Your task to perform on an android device: Go to Amazon Image 0: 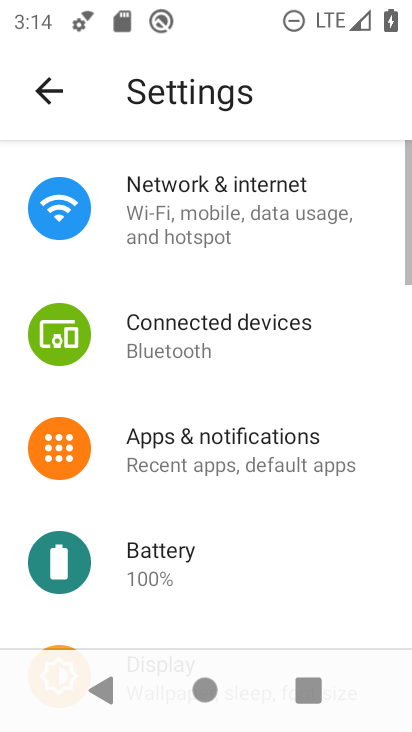
Step 0: press home button
Your task to perform on an android device: Go to Amazon Image 1: 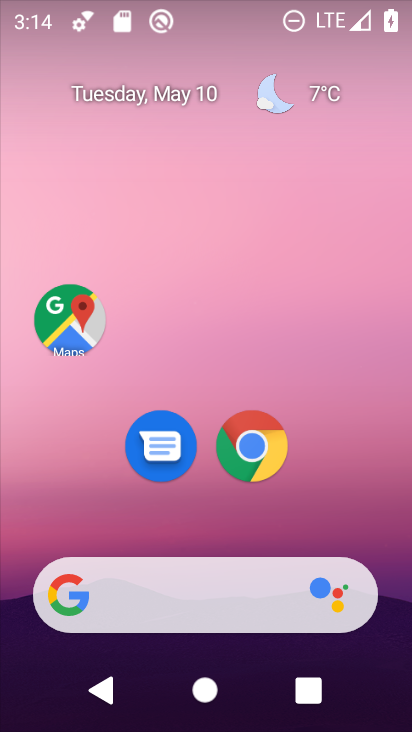
Step 1: click (285, 460)
Your task to perform on an android device: Go to Amazon Image 2: 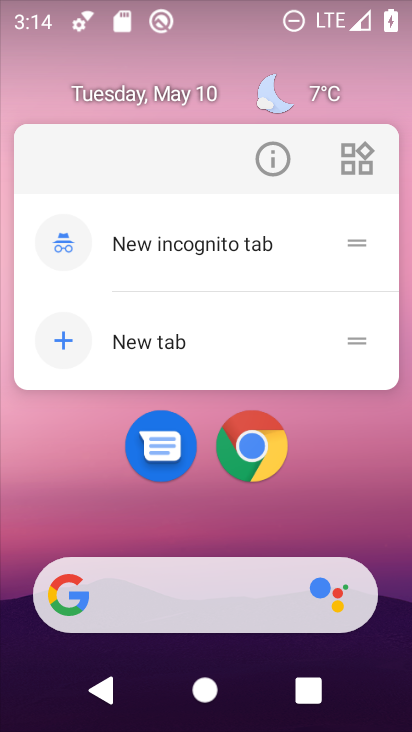
Step 2: click (264, 448)
Your task to perform on an android device: Go to Amazon Image 3: 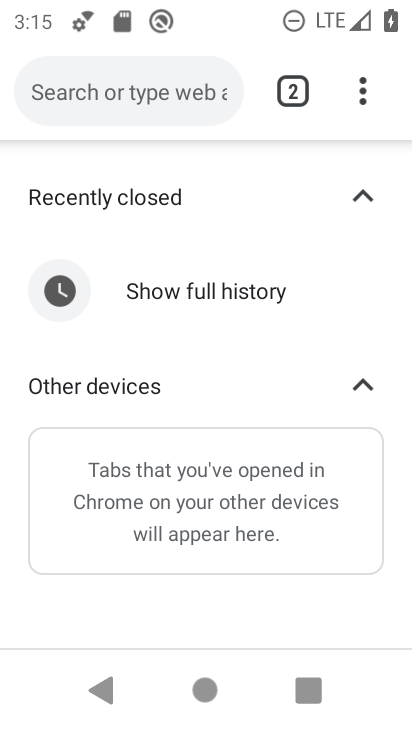
Step 3: click (299, 85)
Your task to perform on an android device: Go to Amazon Image 4: 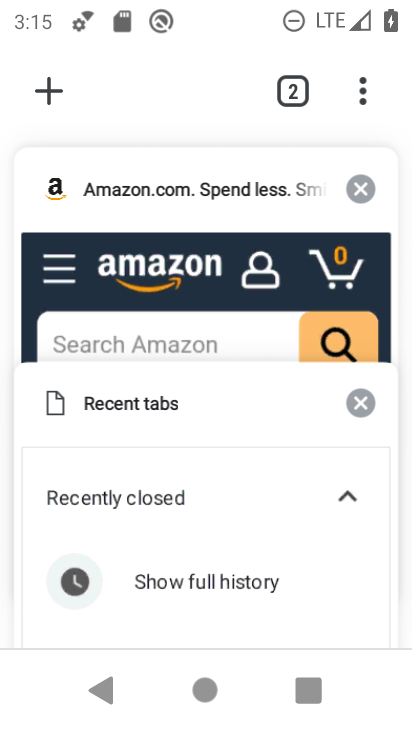
Step 4: click (236, 258)
Your task to perform on an android device: Go to Amazon Image 5: 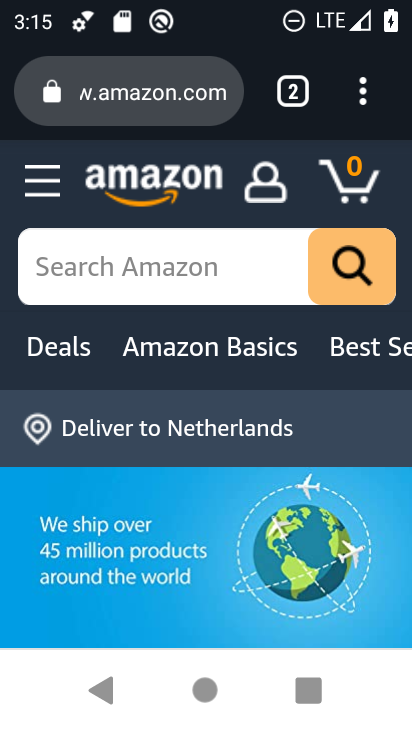
Step 5: task complete